Your task to perform on an android device: toggle notification dots Image 0: 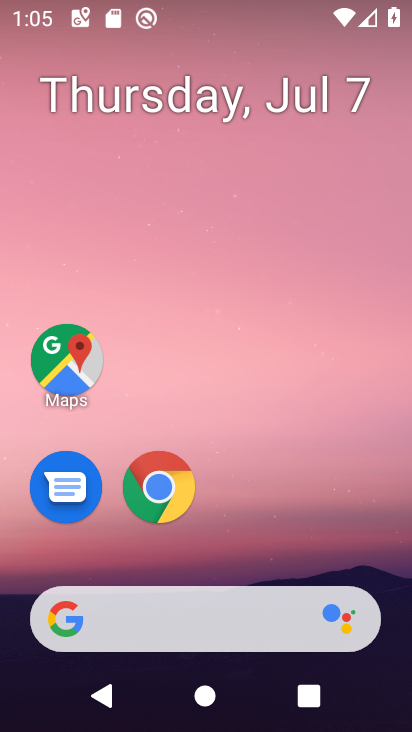
Step 0: drag from (357, 511) to (362, 69)
Your task to perform on an android device: toggle notification dots Image 1: 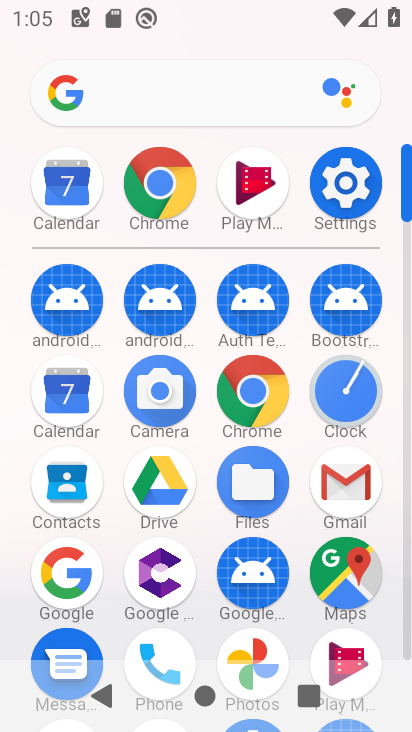
Step 1: click (342, 187)
Your task to perform on an android device: toggle notification dots Image 2: 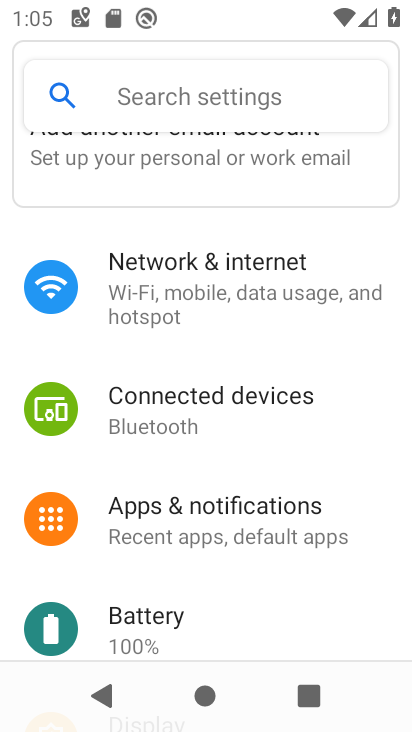
Step 2: drag from (369, 610) to (365, 317)
Your task to perform on an android device: toggle notification dots Image 3: 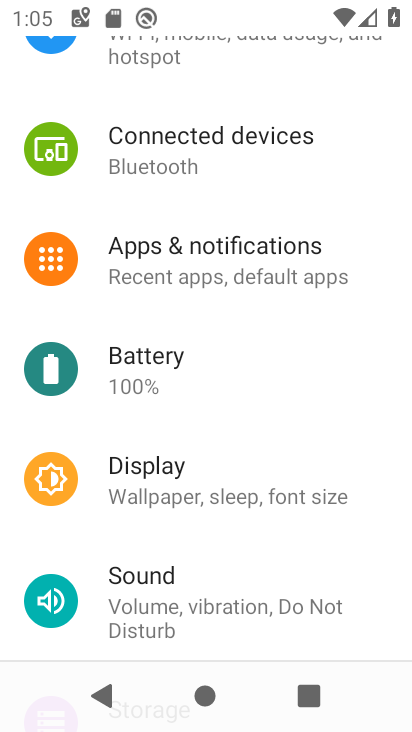
Step 3: drag from (344, 562) to (357, 288)
Your task to perform on an android device: toggle notification dots Image 4: 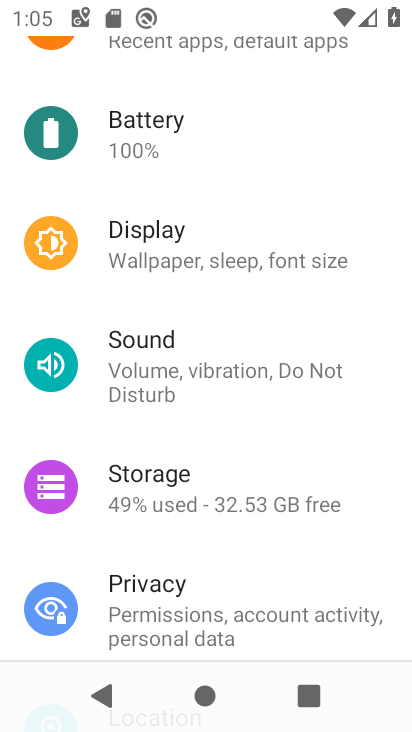
Step 4: drag from (367, 199) to (367, 403)
Your task to perform on an android device: toggle notification dots Image 5: 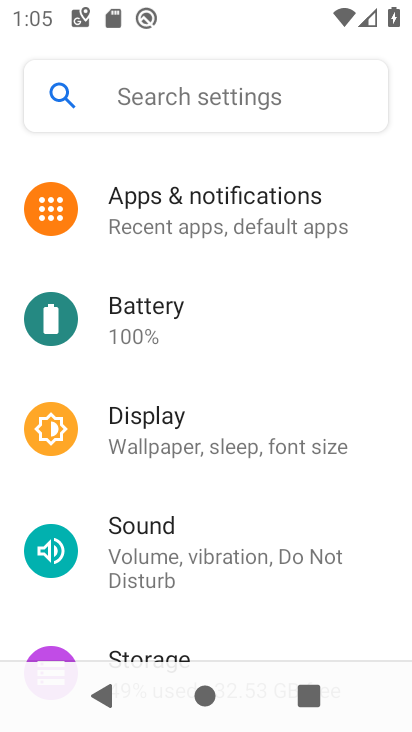
Step 5: drag from (361, 183) to (362, 411)
Your task to perform on an android device: toggle notification dots Image 6: 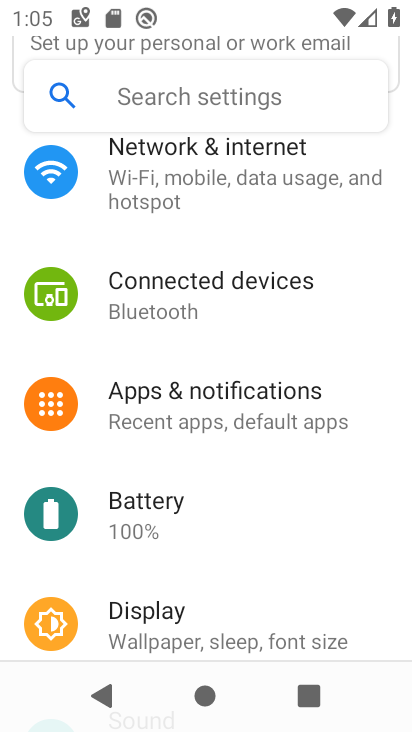
Step 6: click (245, 401)
Your task to perform on an android device: toggle notification dots Image 7: 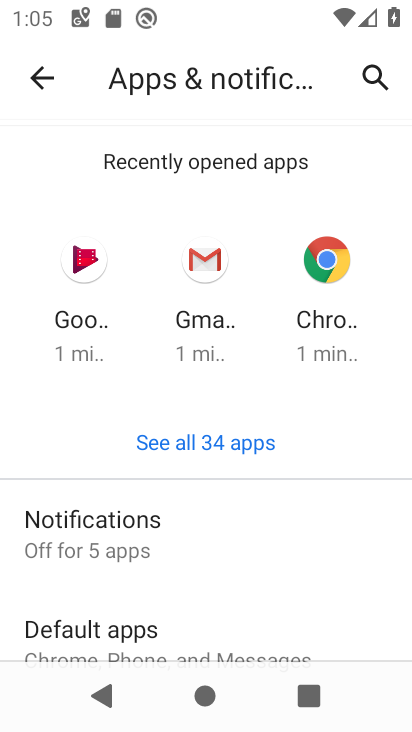
Step 7: drag from (260, 573) to (271, 343)
Your task to perform on an android device: toggle notification dots Image 8: 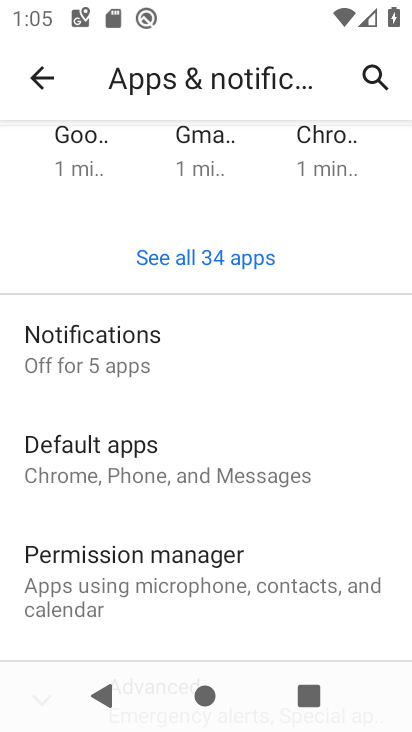
Step 8: click (138, 350)
Your task to perform on an android device: toggle notification dots Image 9: 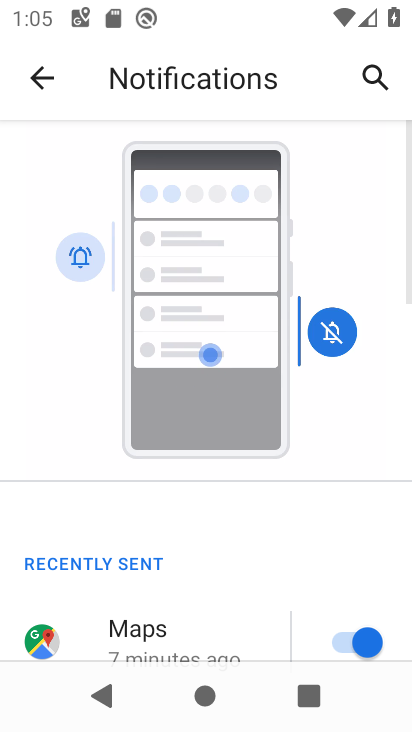
Step 9: drag from (305, 562) to (311, 320)
Your task to perform on an android device: toggle notification dots Image 10: 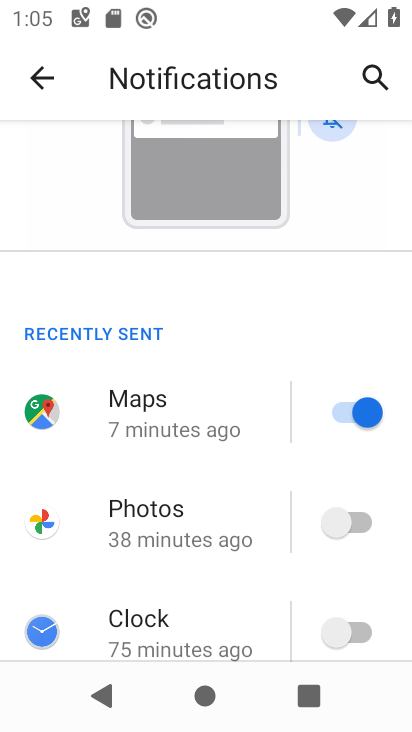
Step 10: drag from (263, 623) to (260, 458)
Your task to perform on an android device: toggle notification dots Image 11: 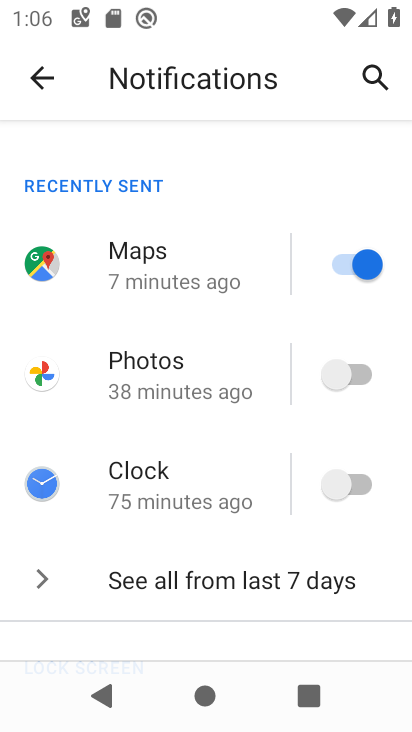
Step 11: drag from (245, 606) to (245, 394)
Your task to perform on an android device: toggle notification dots Image 12: 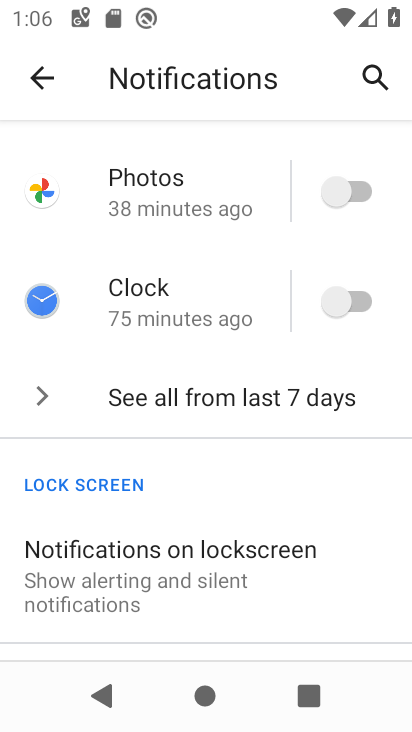
Step 12: drag from (334, 613) to (334, 383)
Your task to perform on an android device: toggle notification dots Image 13: 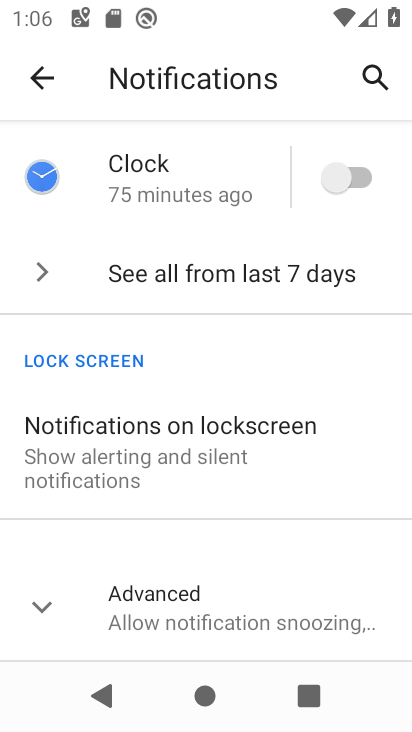
Step 13: click (210, 609)
Your task to perform on an android device: toggle notification dots Image 14: 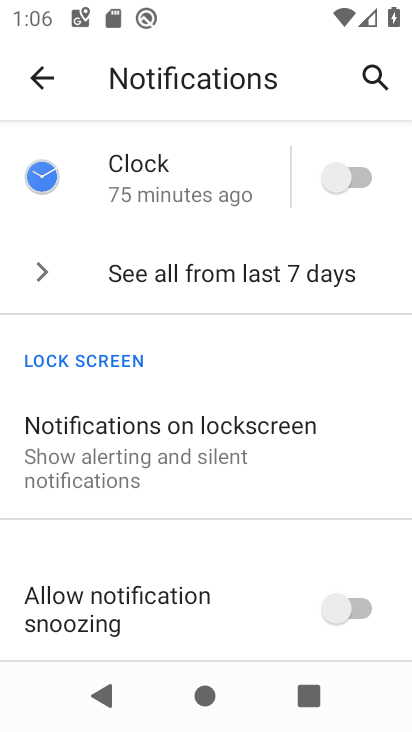
Step 14: drag from (279, 577) to (276, 331)
Your task to perform on an android device: toggle notification dots Image 15: 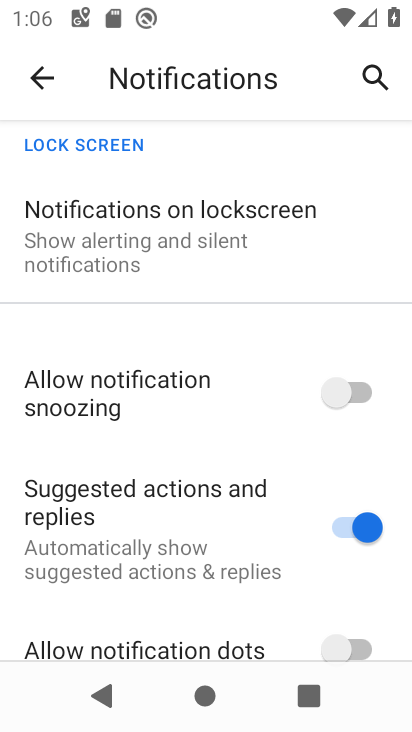
Step 15: drag from (270, 598) to (265, 387)
Your task to perform on an android device: toggle notification dots Image 16: 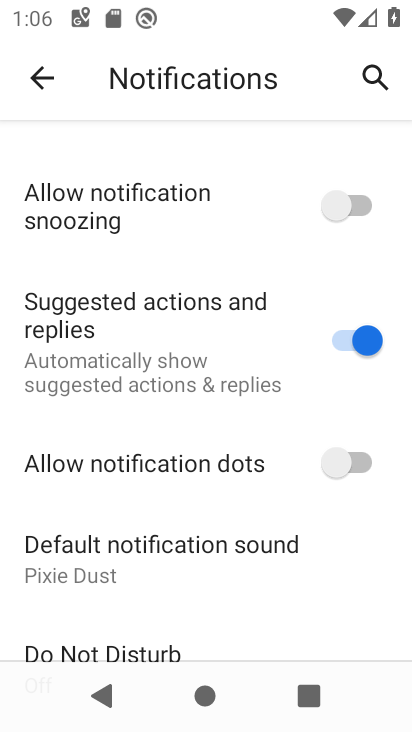
Step 16: click (334, 469)
Your task to perform on an android device: toggle notification dots Image 17: 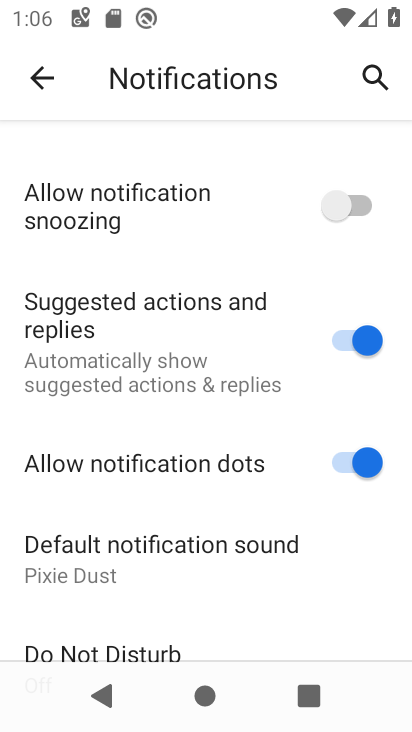
Step 17: task complete